Your task to perform on an android device: add a label to a message in the gmail app Image 0: 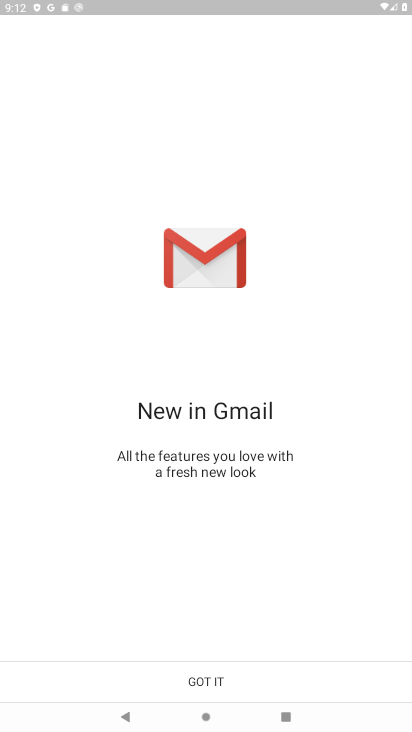
Step 0: press home button
Your task to perform on an android device: add a label to a message in the gmail app Image 1: 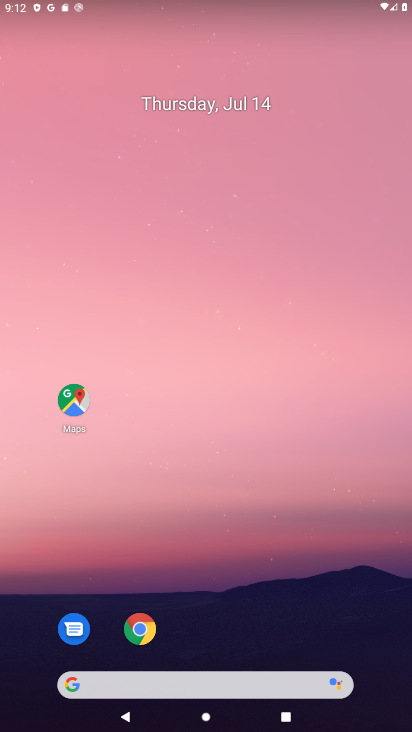
Step 1: drag from (115, 418) to (270, 46)
Your task to perform on an android device: add a label to a message in the gmail app Image 2: 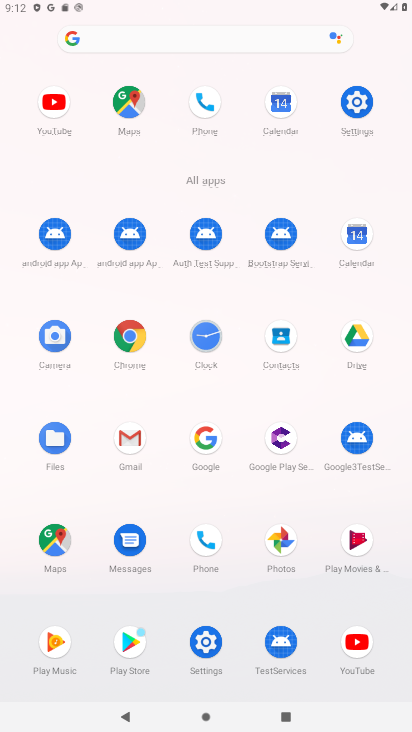
Step 2: click (139, 450)
Your task to perform on an android device: add a label to a message in the gmail app Image 3: 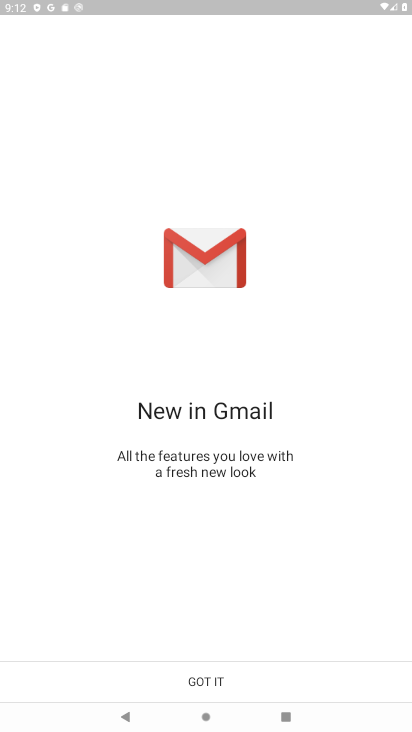
Step 3: click (276, 684)
Your task to perform on an android device: add a label to a message in the gmail app Image 4: 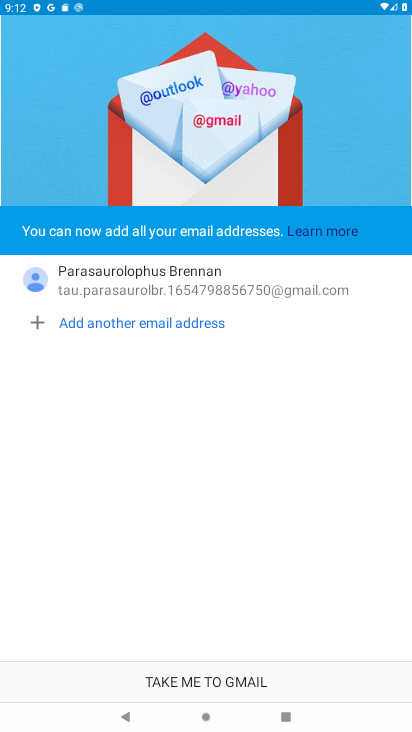
Step 4: click (276, 680)
Your task to perform on an android device: add a label to a message in the gmail app Image 5: 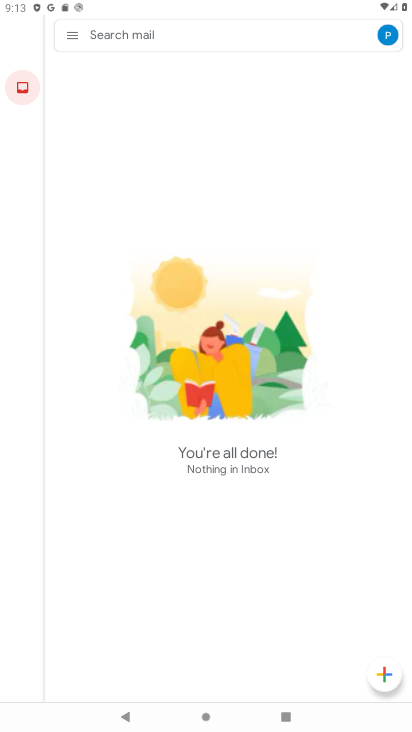
Step 5: task complete